Your task to perform on an android device: set an alarm Image 0: 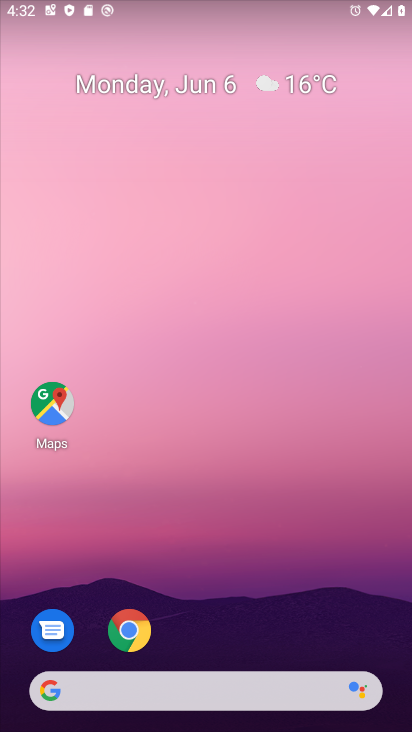
Step 0: drag from (241, 2) to (97, 10)
Your task to perform on an android device: set an alarm Image 1: 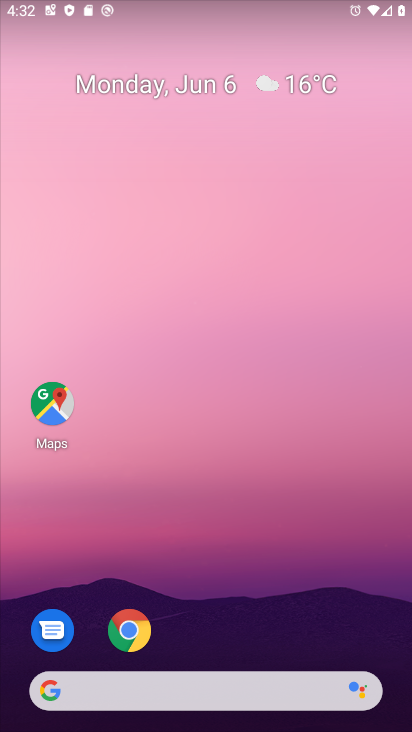
Step 1: drag from (245, 296) to (192, 15)
Your task to perform on an android device: set an alarm Image 2: 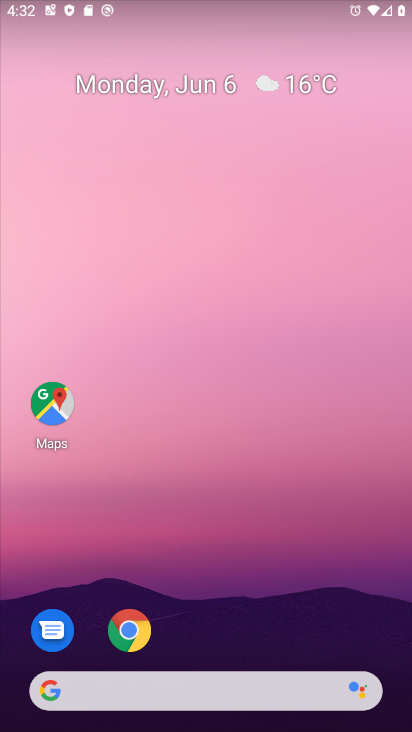
Step 2: drag from (242, 406) to (125, 37)
Your task to perform on an android device: set an alarm Image 3: 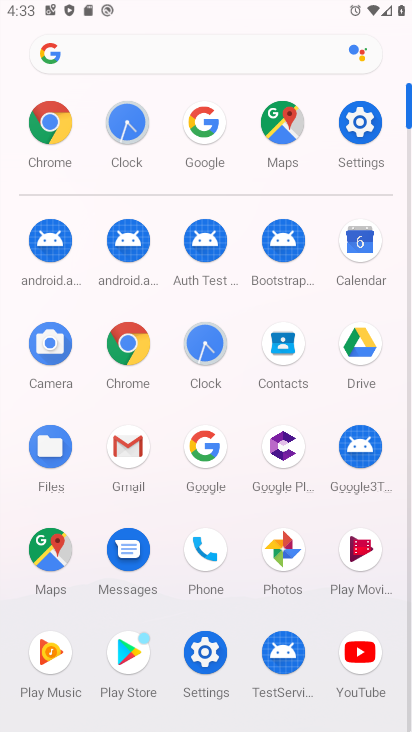
Step 3: click (202, 351)
Your task to perform on an android device: set an alarm Image 4: 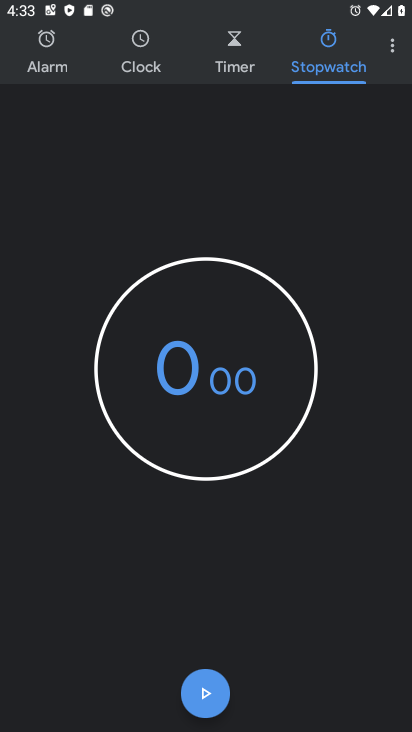
Step 4: click (46, 60)
Your task to perform on an android device: set an alarm Image 5: 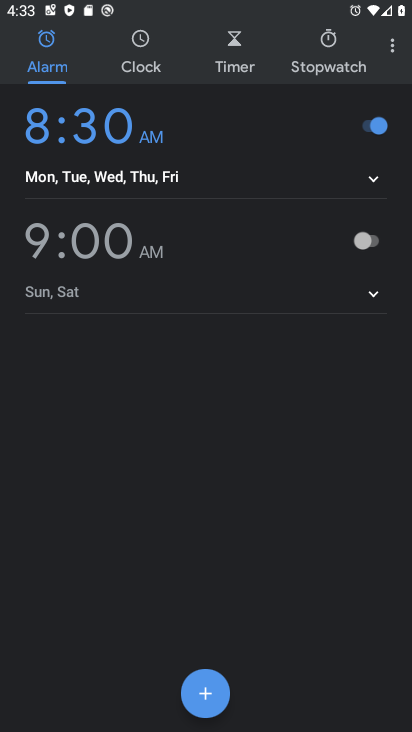
Step 5: click (352, 239)
Your task to perform on an android device: set an alarm Image 6: 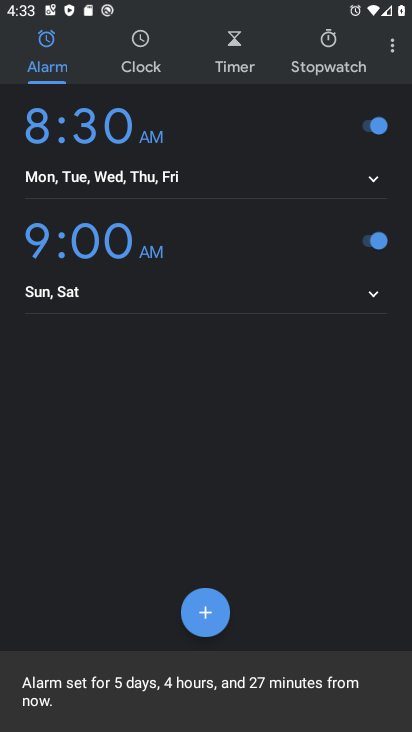
Step 6: task complete